Your task to perform on an android device: Open the music app Image 0: 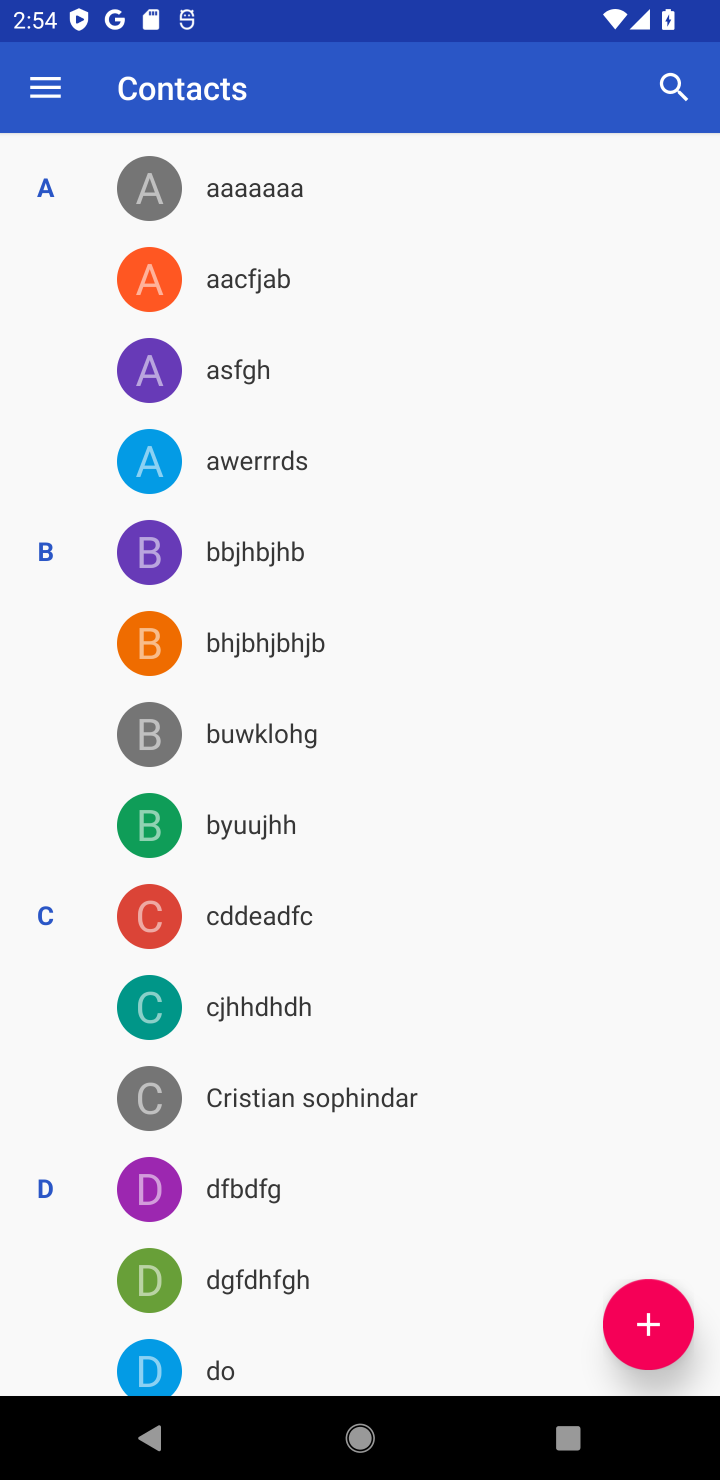
Step 0: press home button
Your task to perform on an android device: Open the music app Image 1: 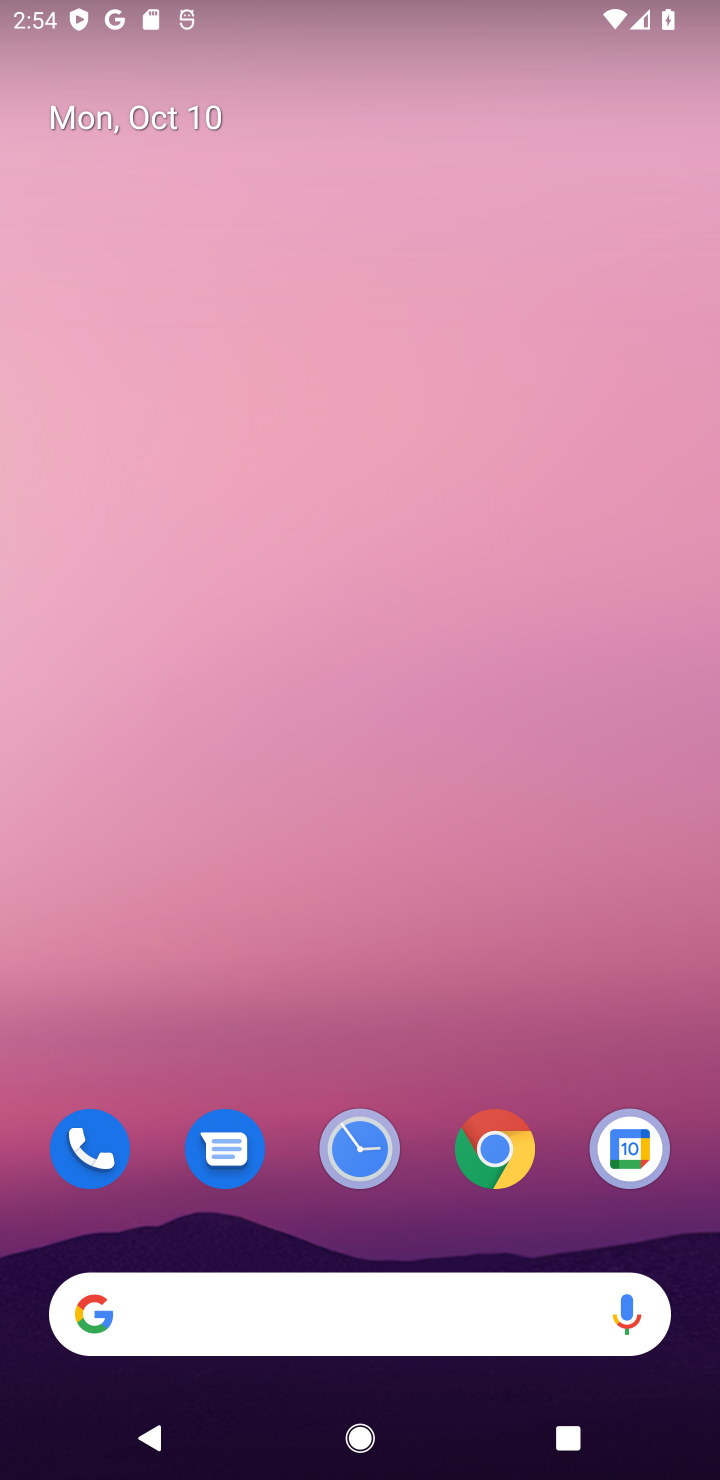
Step 1: drag from (427, 1245) to (530, 0)
Your task to perform on an android device: Open the music app Image 2: 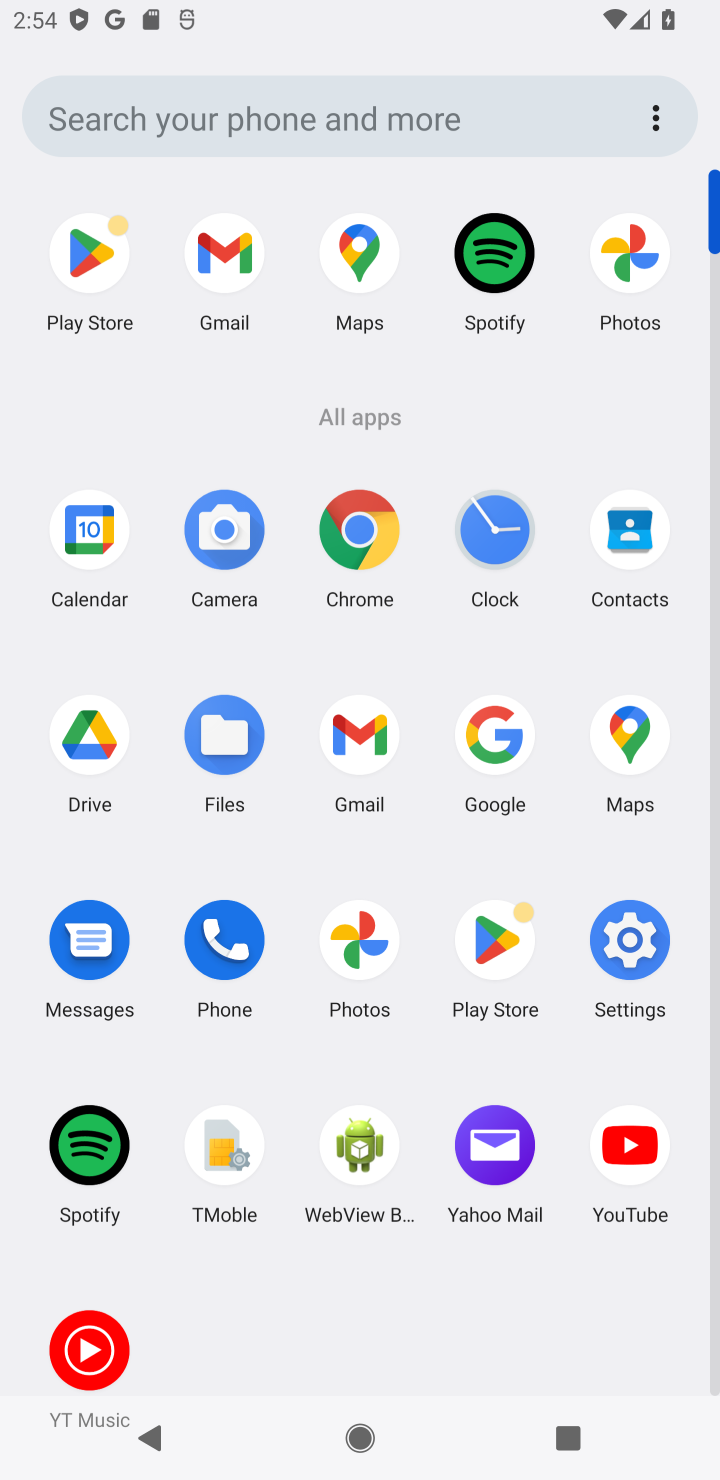
Step 2: click (496, 252)
Your task to perform on an android device: Open the music app Image 3: 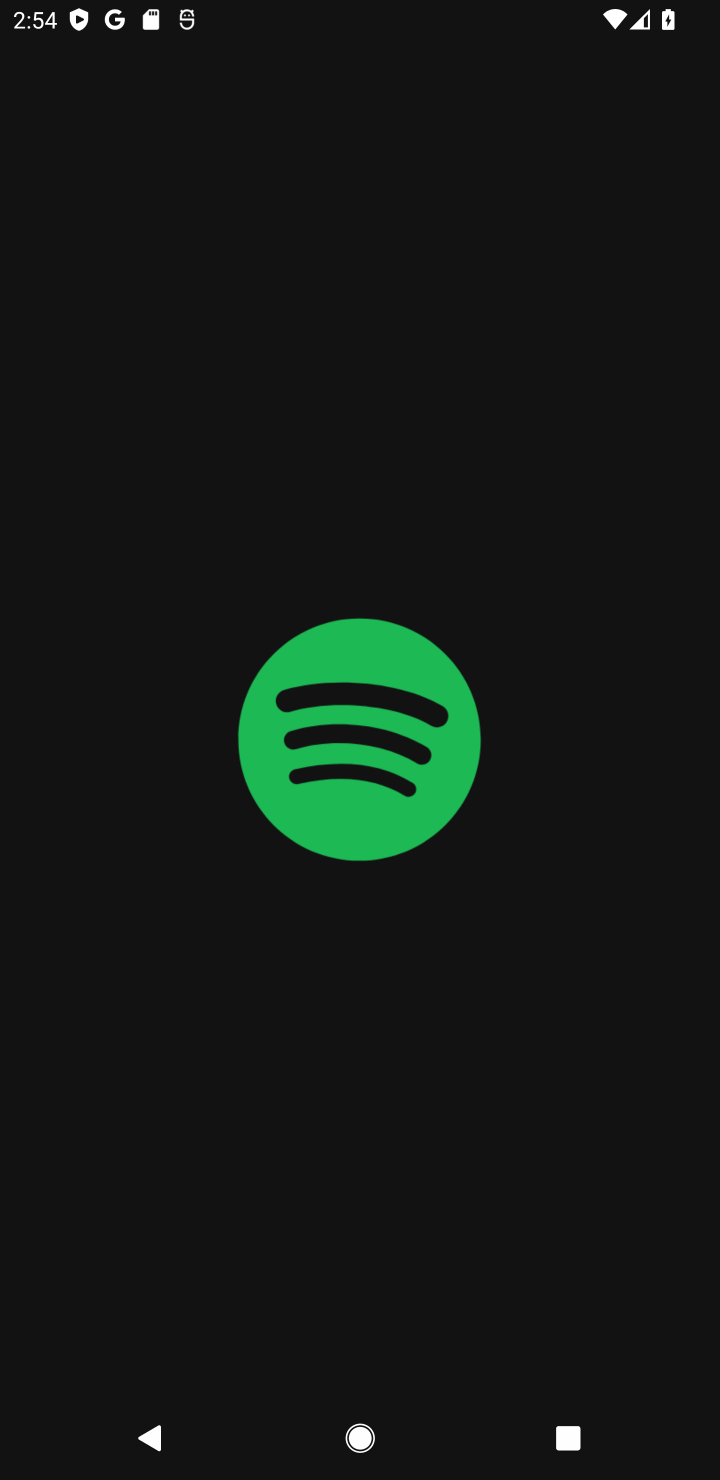
Step 3: task complete